Your task to perform on an android device: Show me the alarms in the clock app Image 0: 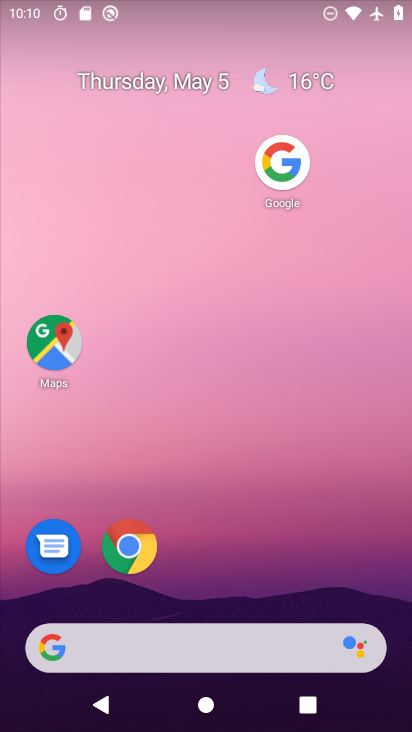
Step 0: drag from (196, 637) to (350, 121)
Your task to perform on an android device: Show me the alarms in the clock app Image 1: 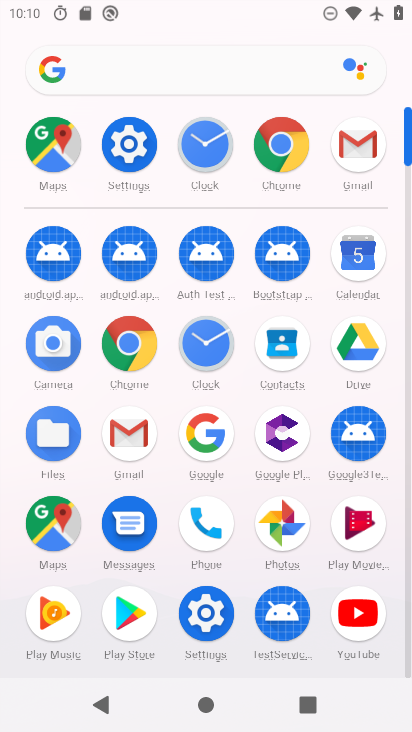
Step 1: click (207, 159)
Your task to perform on an android device: Show me the alarms in the clock app Image 2: 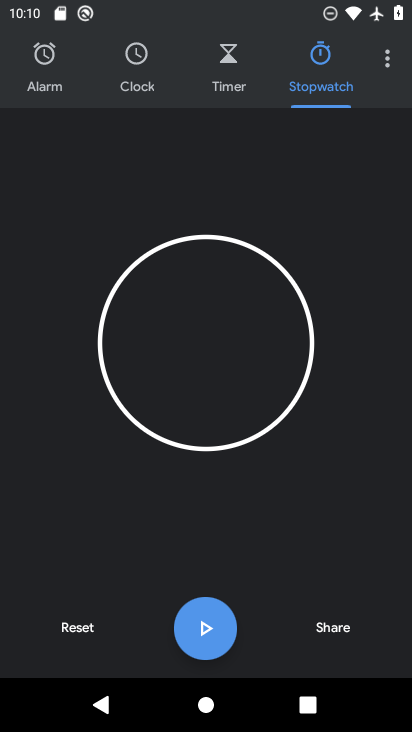
Step 2: click (46, 86)
Your task to perform on an android device: Show me the alarms in the clock app Image 3: 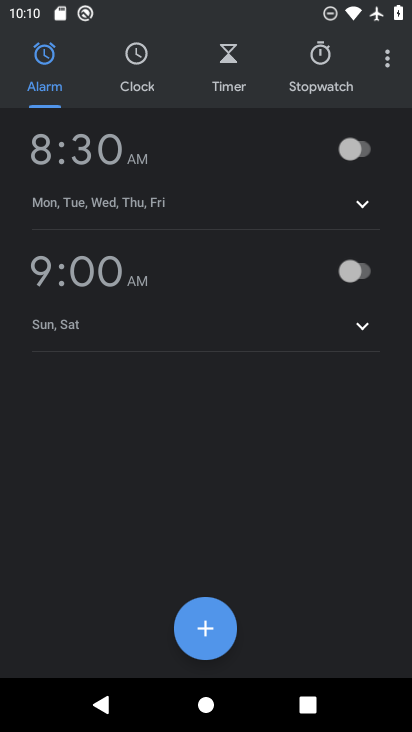
Step 3: task complete